Your task to perform on an android device: turn notification dots off Image 0: 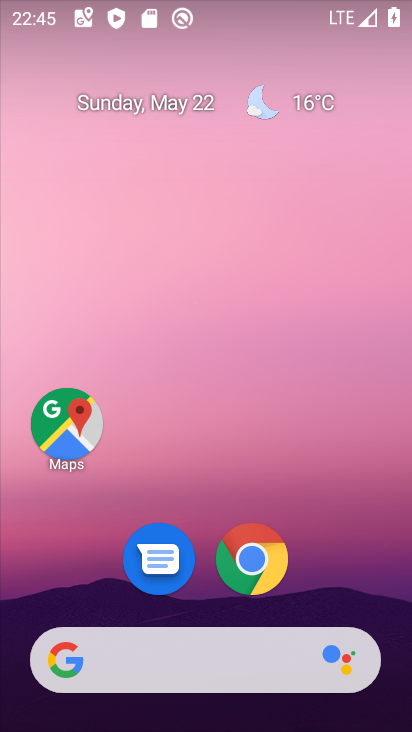
Step 0: drag from (304, 642) to (290, 47)
Your task to perform on an android device: turn notification dots off Image 1: 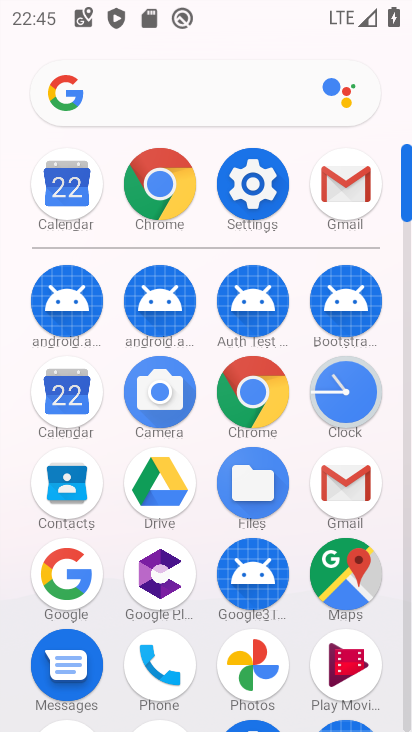
Step 1: click (277, 159)
Your task to perform on an android device: turn notification dots off Image 2: 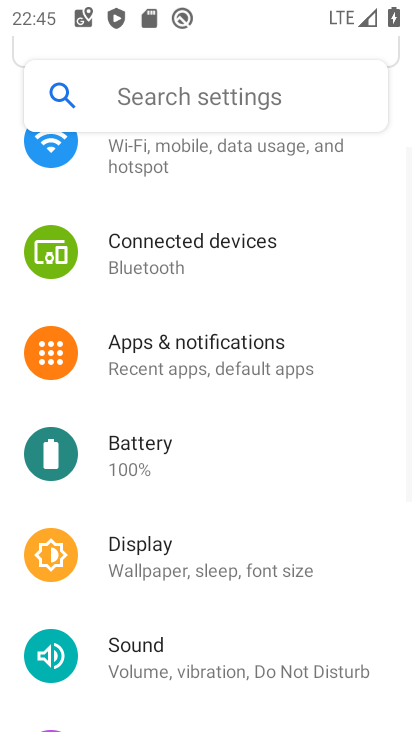
Step 2: click (201, 107)
Your task to perform on an android device: turn notification dots off Image 3: 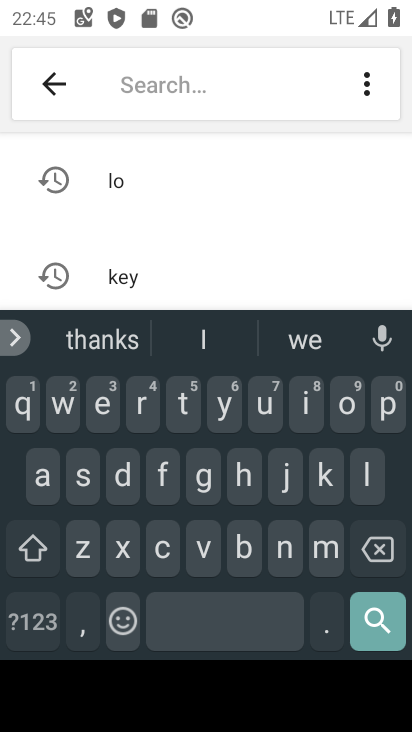
Step 3: click (111, 488)
Your task to perform on an android device: turn notification dots off Image 4: 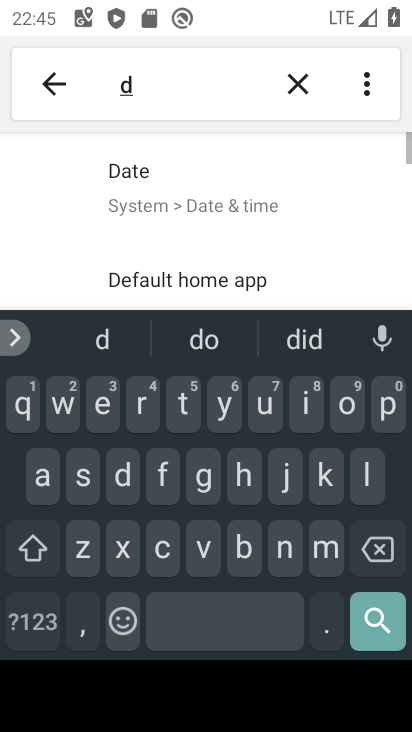
Step 4: click (350, 419)
Your task to perform on an android device: turn notification dots off Image 5: 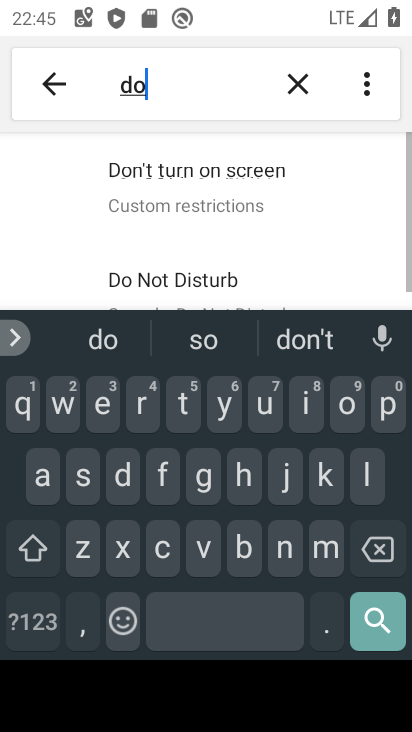
Step 5: click (183, 419)
Your task to perform on an android device: turn notification dots off Image 6: 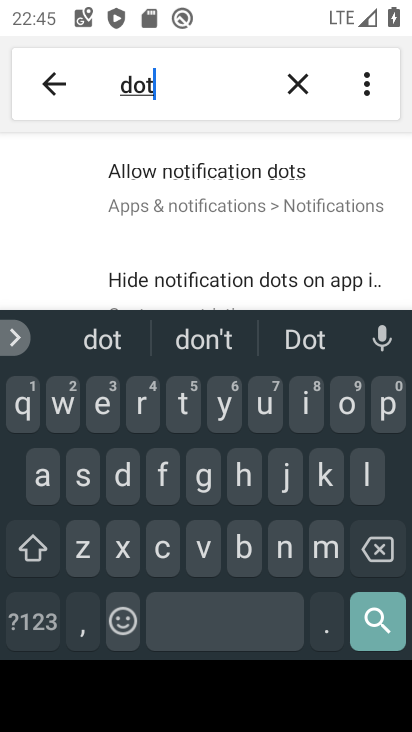
Step 6: click (276, 193)
Your task to perform on an android device: turn notification dots off Image 7: 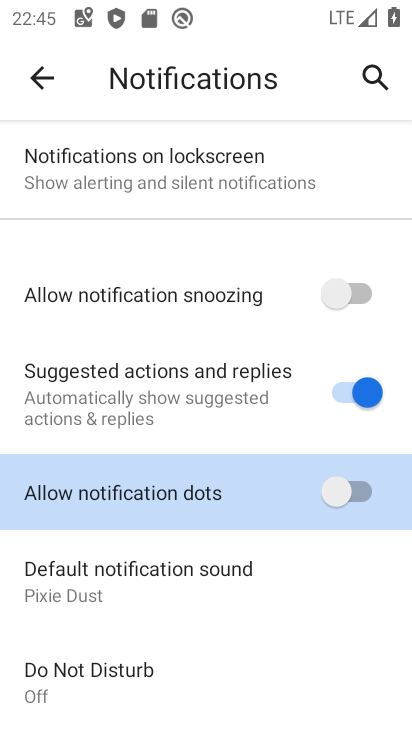
Step 7: click (350, 484)
Your task to perform on an android device: turn notification dots off Image 8: 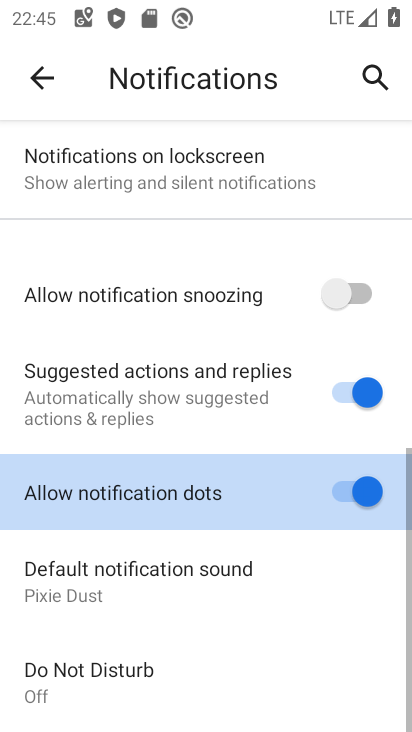
Step 8: click (350, 483)
Your task to perform on an android device: turn notification dots off Image 9: 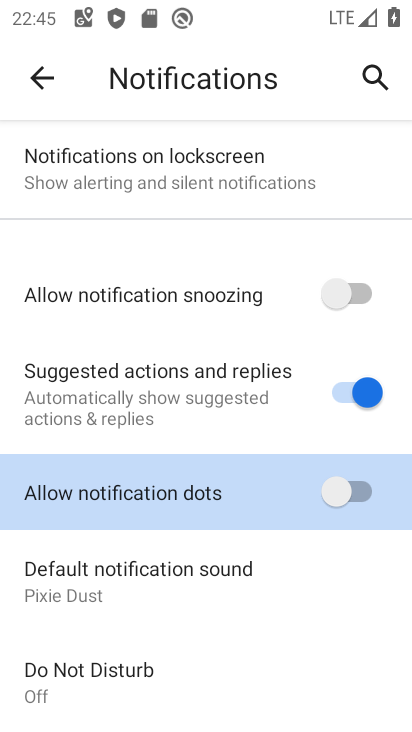
Step 9: task complete